Your task to perform on an android device: turn off airplane mode Image 0: 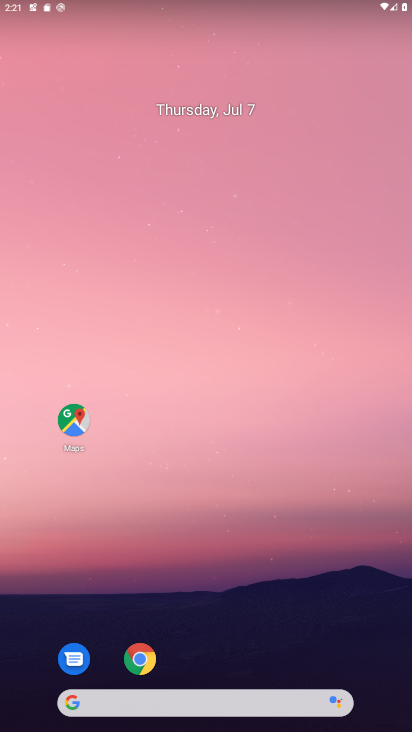
Step 0: drag from (183, 622) to (182, 128)
Your task to perform on an android device: turn off airplane mode Image 1: 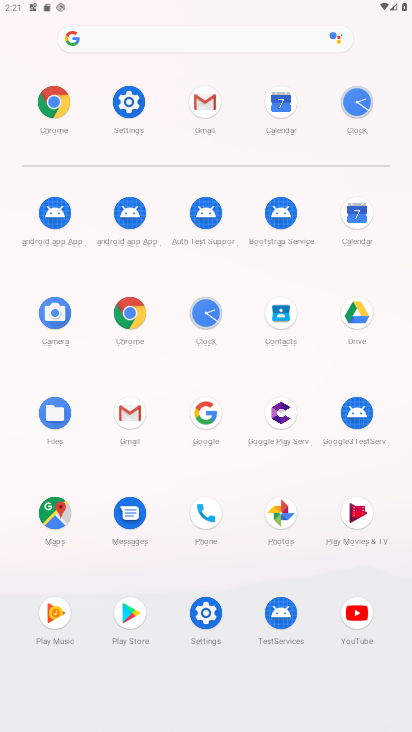
Step 1: drag from (204, 501) to (266, 216)
Your task to perform on an android device: turn off airplane mode Image 2: 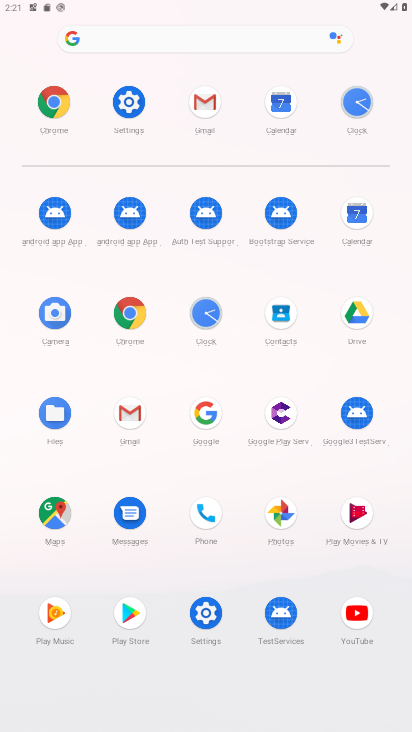
Step 2: click (199, 611)
Your task to perform on an android device: turn off airplane mode Image 3: 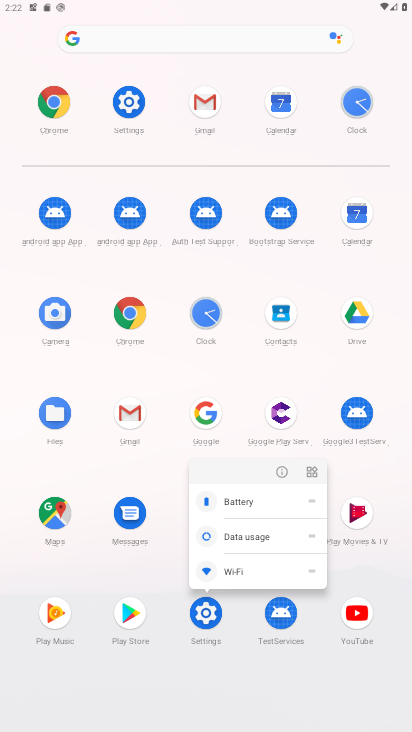
Step 3: click (281, 474)
Your task to perform on an android device: turn off airplane mode Image 4: 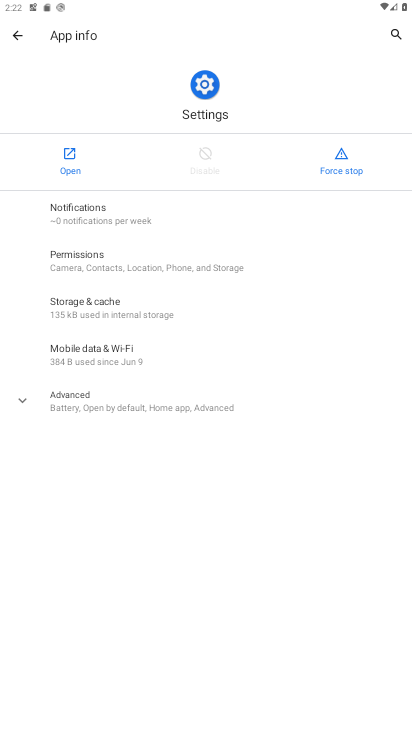
Step 4: click (74, 160)
Your task to perform on an android device: turn off airplane mode Image 5: 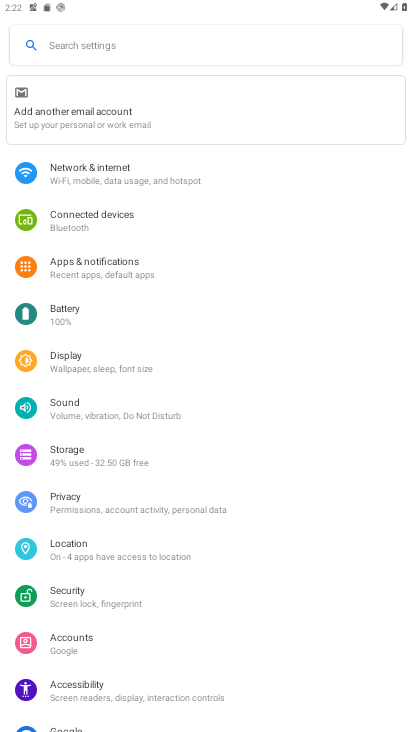
Step 5: click (124, 174)
Your task to perform on an android device: turn off airplane mode Image 6: 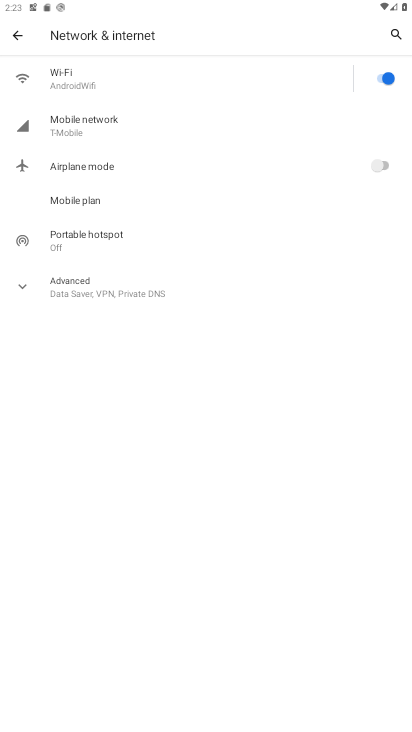
Step 6: task complete